Your task to perform on an android device: change notifications settings Image 0: 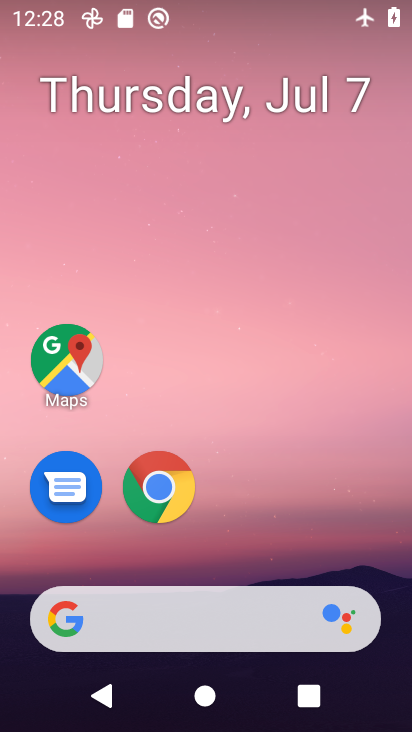
Step 0: drag from (372, 549) to (361, 174)
Your task to perform on an android device: change notifications settings Image 1: 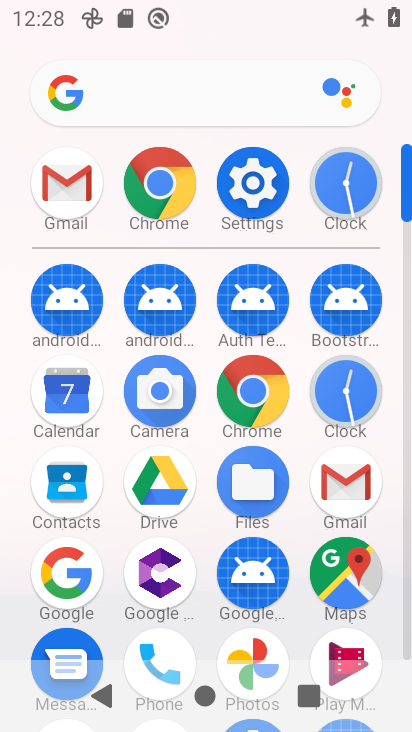
Step 1: click (256, 192)
Your task to perform on an android device: change notifications settings Image 2: 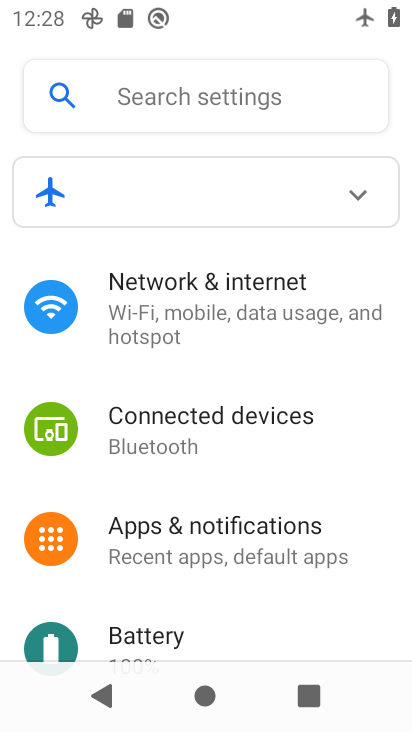
Step 2: drag from (373, 571) to (379, 309)
Your task to perform on an android device: change notifications settings Image 3: 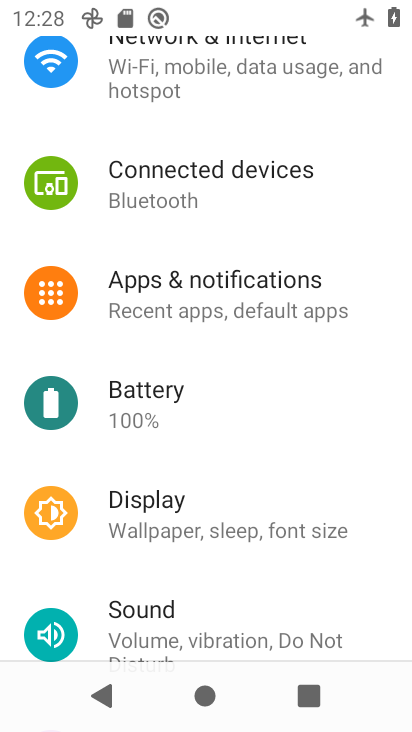
Step 3: drag from (381, 577) to (381, 308)
Your task to perform on an android device: change notifications settings Image 4: 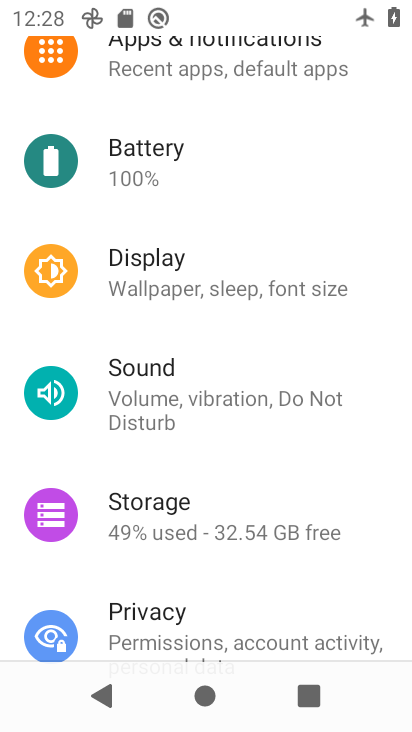
Step 4: drag from (357, 566) to (356, 407)
Your task to perform on an android device: change notifications settings Image 5: 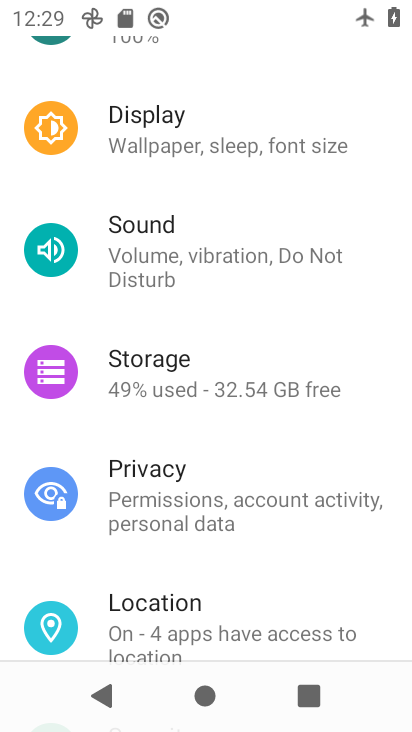
Step 5: drag from (366, 270) to (370, 436)
Your task to perform on an android device: change notifications settings Image 6: 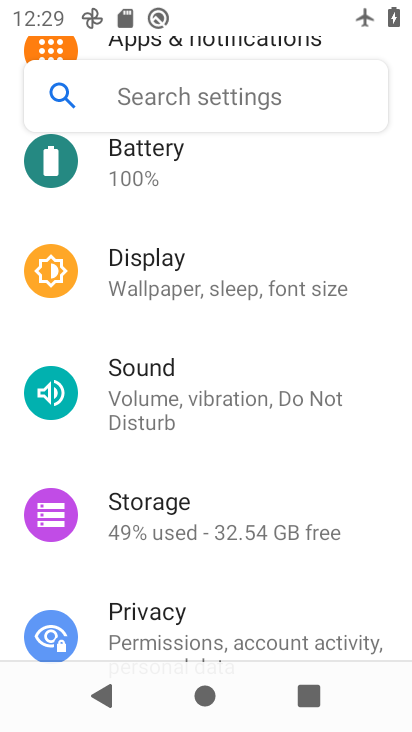
Step 6: drag from (356, 200) to (362, 400)
Your task to perform on an android device: change notifications settings Image 7: 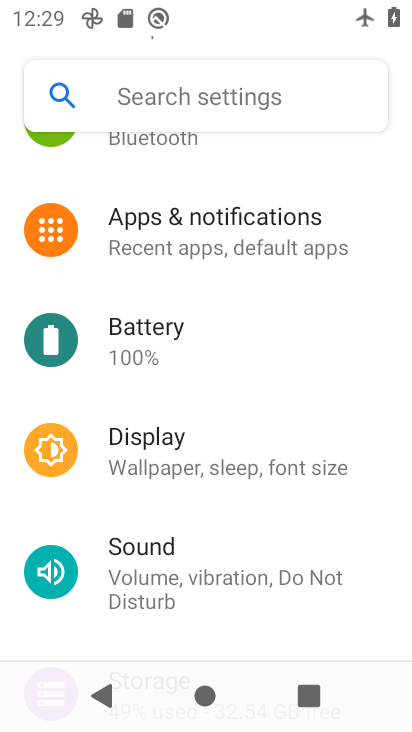
Step 7: drag from (364, 188) to (366, 317)
Your task to perform on an android device: change notifications settings Image 8: 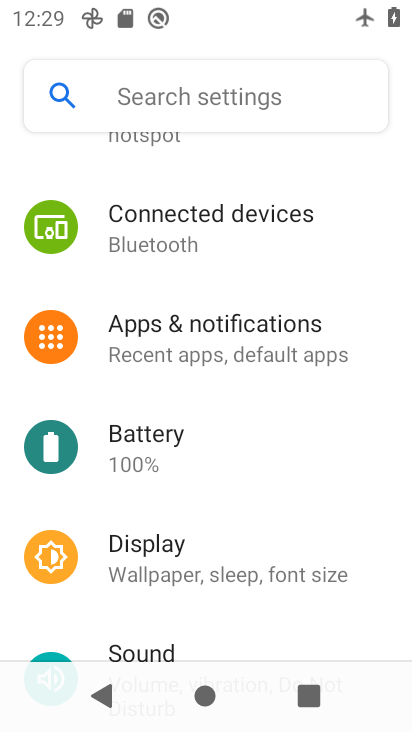
Step 8: click (227, 348)
Your task to perform on an android device: change notifications settings Image 9: 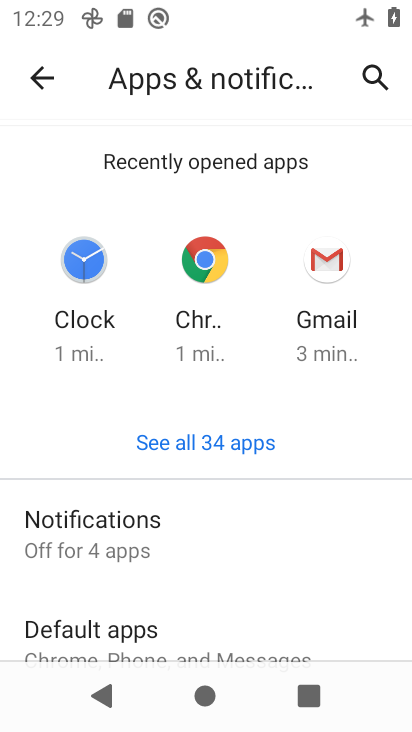
Step 9: click (150, 532)
Your task to perform on an android device: change notifications settings Image 10: 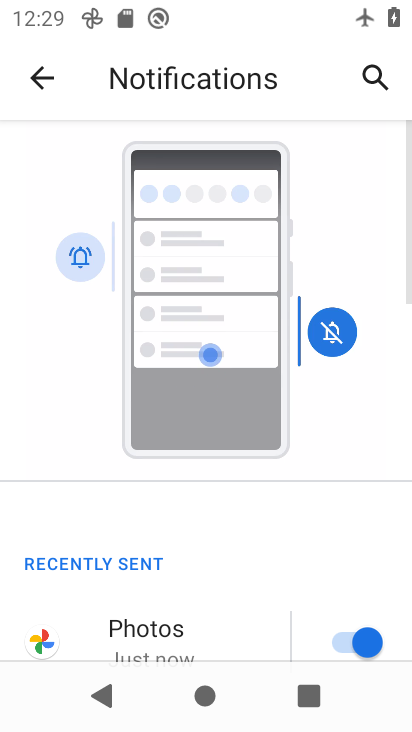
Step 10: drag from (319, 544) to (341, 349)
Your task to perform on an android device: change notifications settings Image 11: 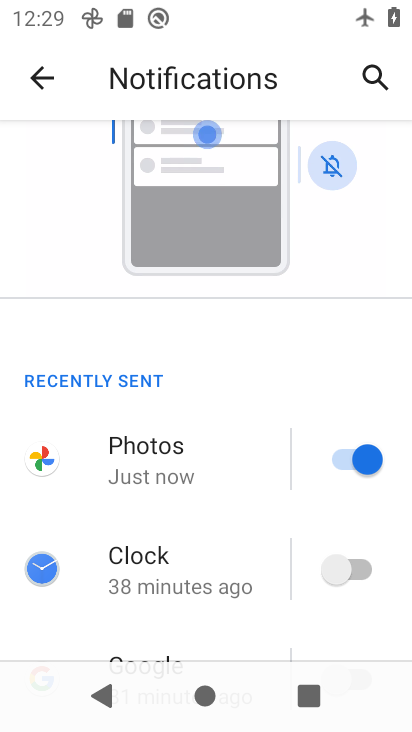
Step 11: drag from (258, 550) to (259, 441)
Your task to perform on an android device: change notifications settings Image 12: 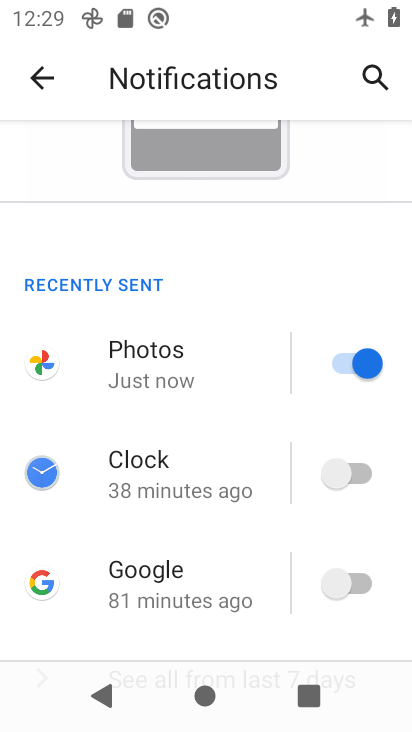
Step 12: click (343, 367)
Your task to perform on an android device: change notifications settings Image 13: 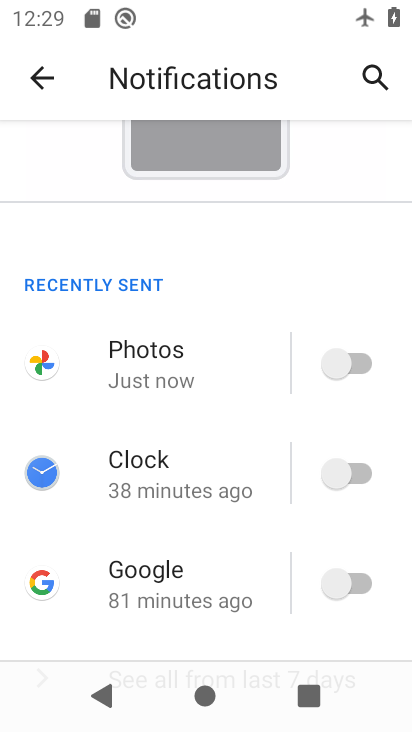
Step 13: task complete